Your task to perform on an android device: open the mobile data screen to see how much data has been used Image 0: 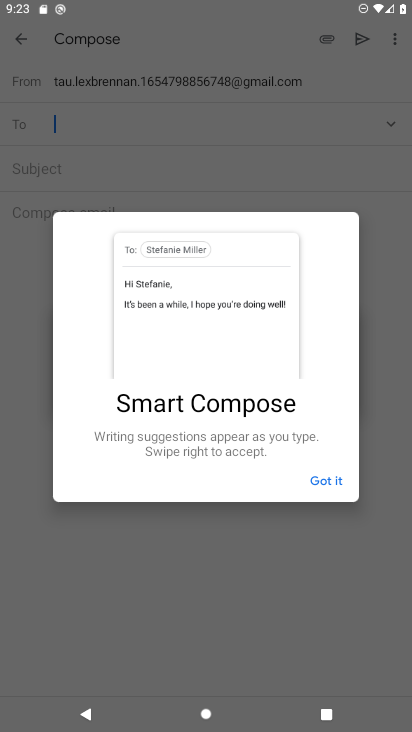
Step 0: press home button
Your task to perform on an android device: open the mobile data screen to see how much data has been used Image 1: 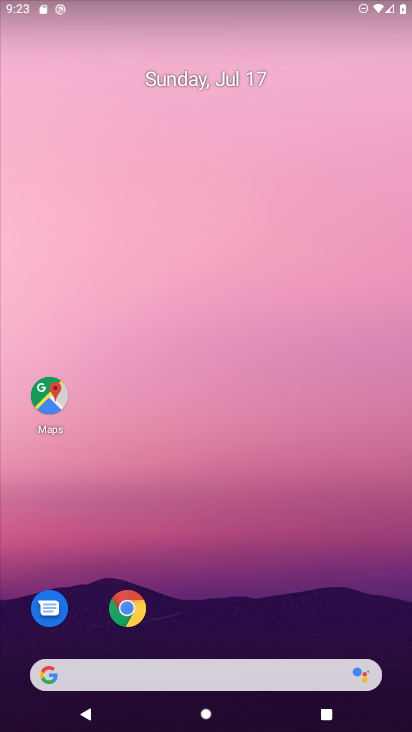
Step 1: drag from (181, 673) to (237, 294)
Your task to perform on an android device: open the mobile data screen to see how much data has been used Image 2: 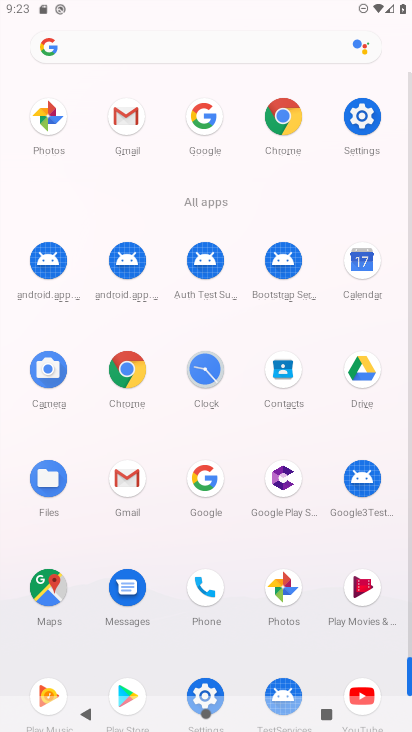
Step 2: click (363, 113)
Your task to perform on an android device: open the mobile data screen to see how much data has been used Image 3: 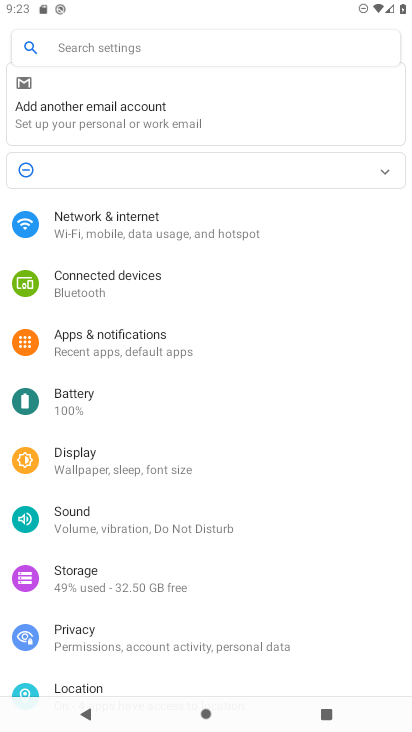
Step 3: click (155, 236)
Your task to perform on an android device: open the mobile data screen to see how much data has been used Image 4: 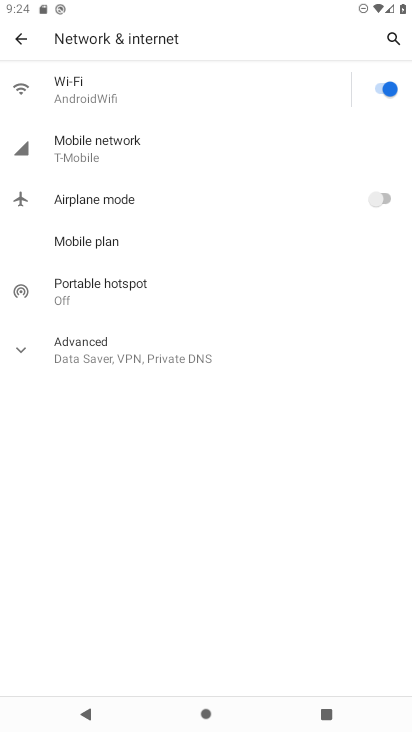
Step 4: click (136, 157)
Your task to perform on an android device: open the mobile data screen to see how much data has been used Image 5: 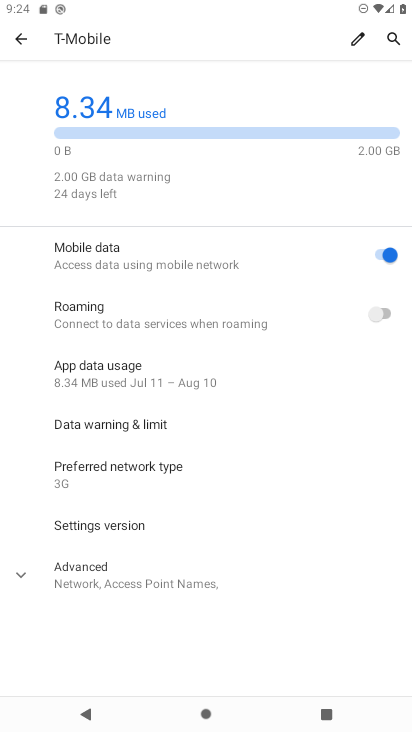
Step 5: task complete